Your task to perform on an android device: Show me the best rated vacuum on Walmart. Image 0: 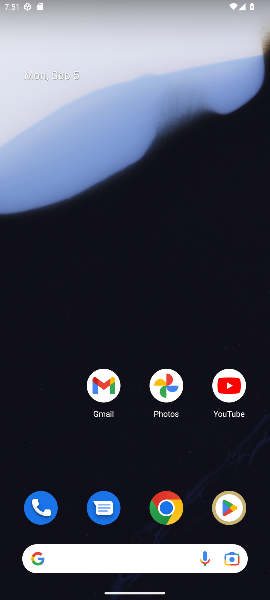
Step 0: click (165, 512)
Your task to perform on an android device: Show me the best rated vacuum on Walmart. Image 1: 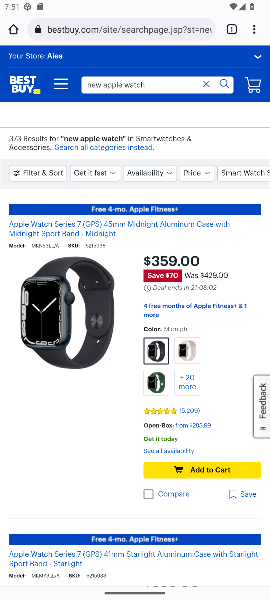
Step 1: click (130, 26)
Your task to perform on an android device: Show me the best rated vacuum on Walmart. Image 2: 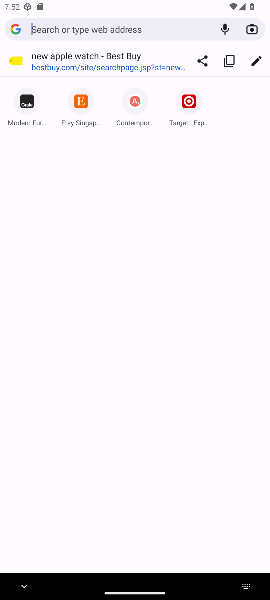
Step 2: type " Walmart."
Your task to perform on an android device: Show me the best rated vacuum on Walmart. Image 3: 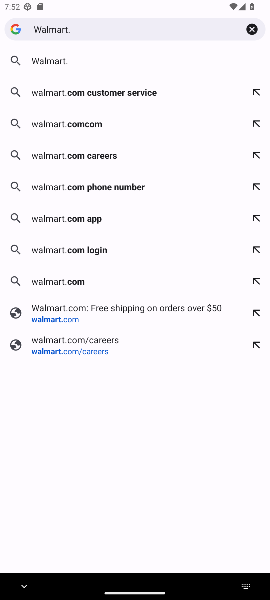
Step 3: click (51, 68)
Your task to perform on an android device: Show me the best rated vacuum on Walmart. Image 4: 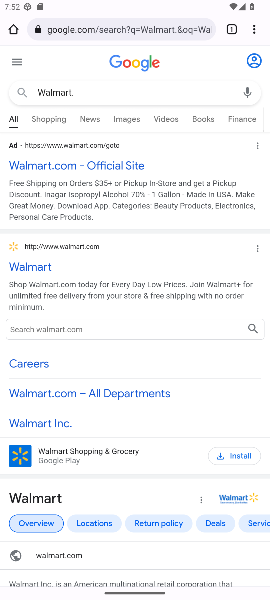
Step 4: click (48, 165)
Your task to perform on an android device: Show me the best rated vacuum on Walmart. Image 5: 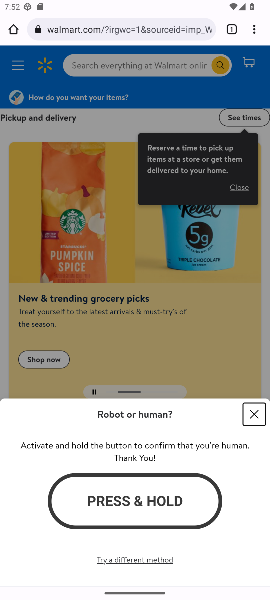
Step 5: click (127, 560)
Your task to perform on an android device: Show me the best rated vacuum on Walmart. Image 6: 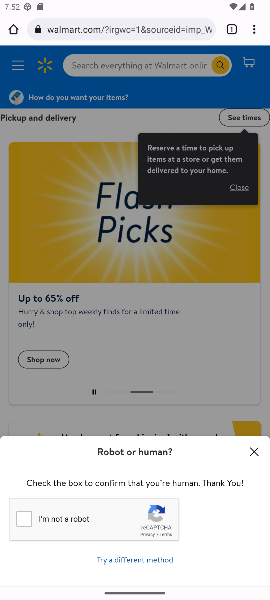
Step 6: click (26, 524)
Your task to perform on an android device: Show me the best rated vacuum on Walmart. Image 7: 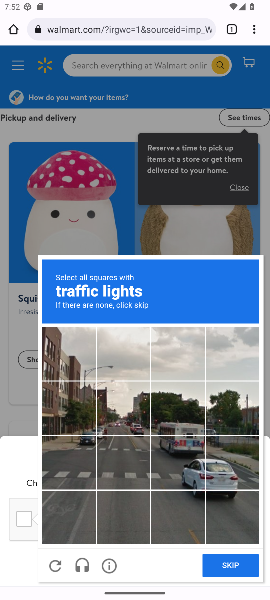
Step 7: click (112, 369)
Your task to perform on an android device: Show me the best rated vacuum on Walmart. Image 8: 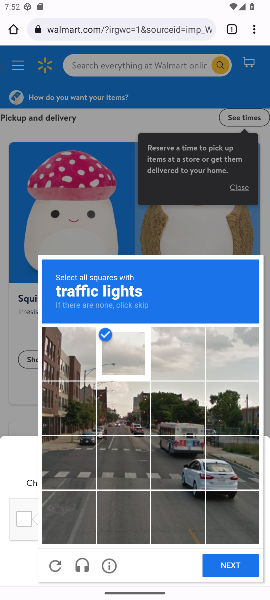
Step 8: click (230, 570)
Your task to perform on an android device: Show me the best rated vacuum on Walmart. Image 9: 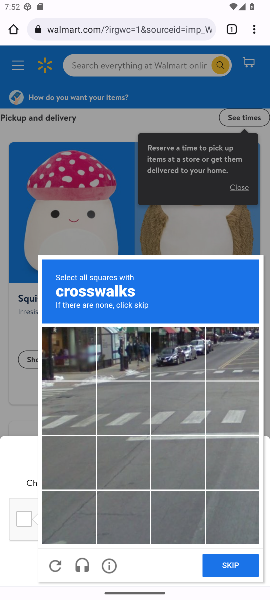
Step 9: click (186, 405)
Your task to perform on an android device: Show me the best rated vacuum on Walmart. Image 10: 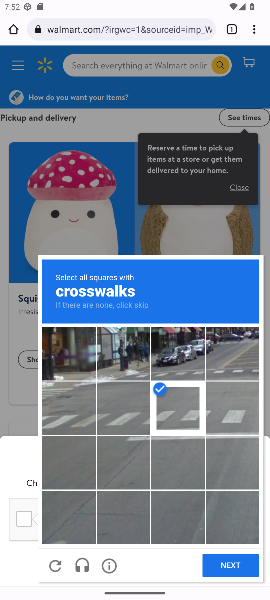
Step 10: click (71, 407)
Your task to perform on an android device: Show me the best rated vacuum on Walmart. Image 11: 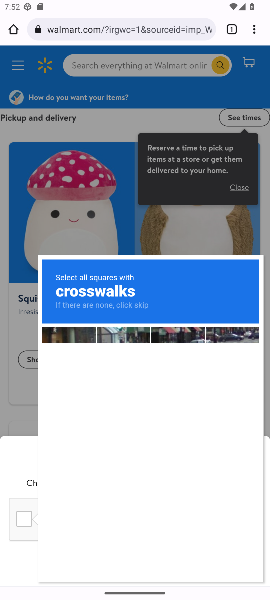
Step 11: click (119, 414)
Your task to perform on an android device: Show me the best rated vacuum on Walmart. Image 12: 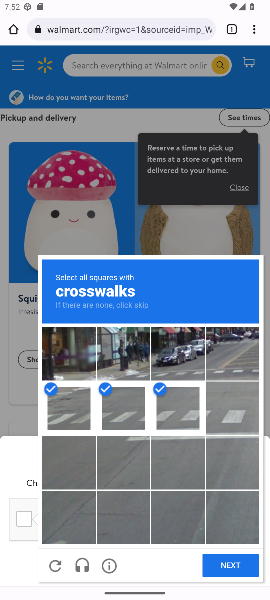
Step 12: click (256, 418)
Your task to perform on an android device: Show me the best rated vacuum on Walmart. Image 13: 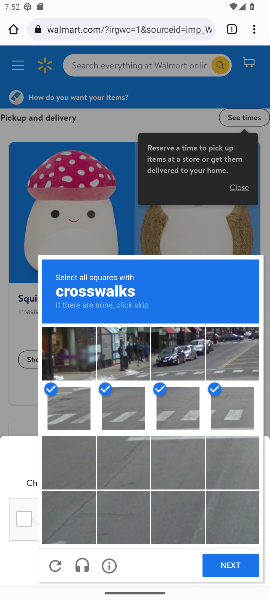
Step 13: click (242, 378)
Your task to perform on an android device: Show me the best rated vacuum on Walmart. Image 14: 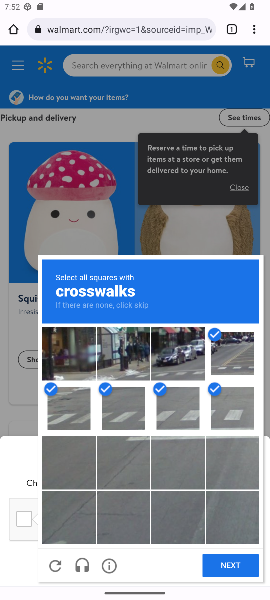
Step 14: click (181, 370)
Your task to perform on an android device: Show me the best rated vacuum on Walmart. Image 15: 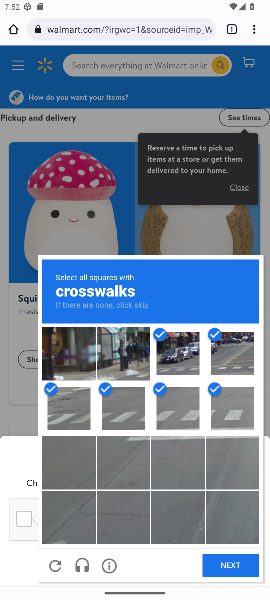
Step 15: click (133, 371)
Your task to perform on an android device: Show me the best rated vacuum on Walmart. Image 16: 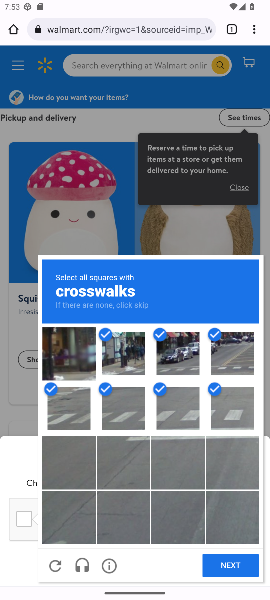
Step 16: click (241, 566)
Your task to perform on an android device: Show me the best rated vacuum on Walmart. Image 17: 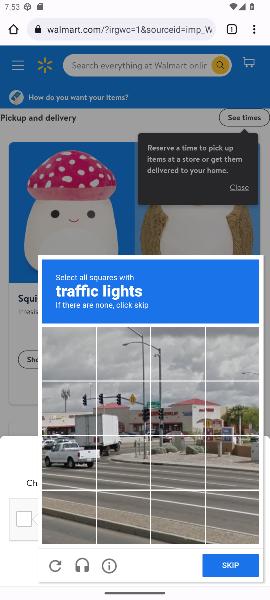
Step 17: click (131, 346)
Your task to perform on an android device: Show me the best rated vacuum on Walmart. Image 18: 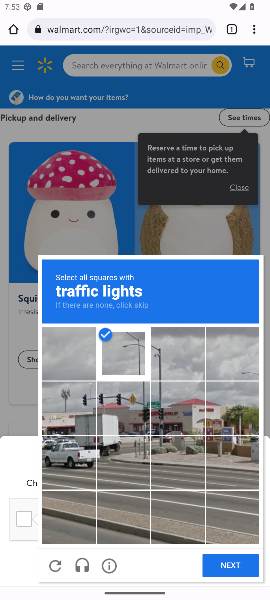
Step 18: click (110, 394)
Your task to perform on an android device: Show me the best rated vacuum on Walmart. Image 19: 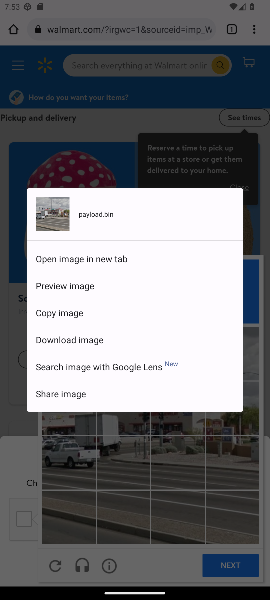
Step 19: click (108, 421)
Your task to perform on an android device: Show me the best rated vacuum on Walmart. Image 20: 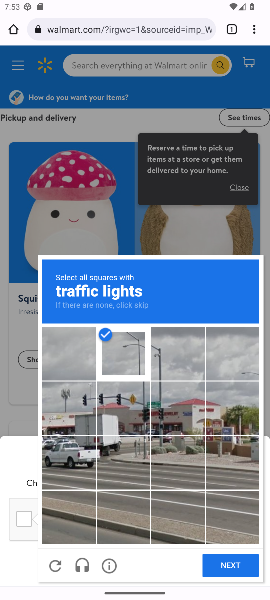
Step 20: click (116, 402)
Your task to perform on an android device: Show me the best rated vacuum on Walmart. Image 21: 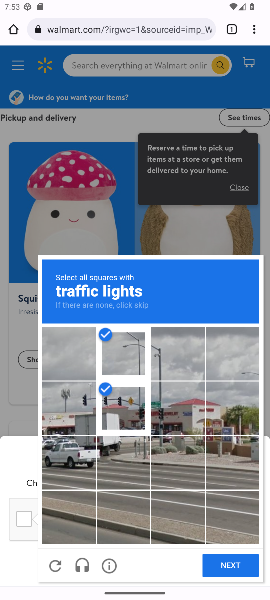
Step 21: click (84, 405)
Your task to perform on an android device: Show me the best rated vacuum on Walmart. Image 22: 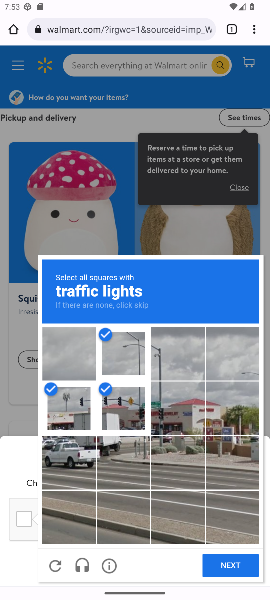
Step 22: click (160, 363)
Your task to perform on an android device: Show me the best rated vacuum on Walmart. Image 23: 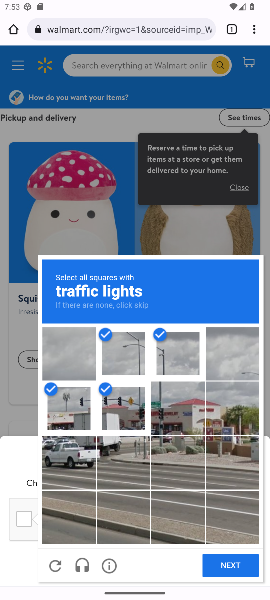
Step 23: click (247, 565)
Your task to perform on an android device: Show me the best rated vacuum on Walmart. Image 24: 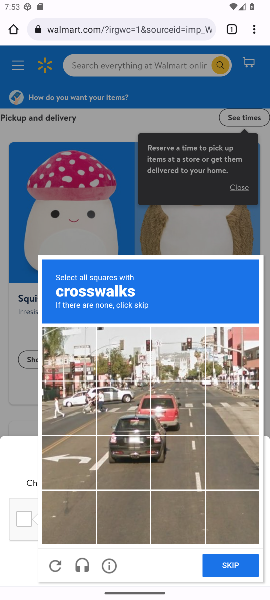
Step 24: click (92, 404)
Your task to perform on an android device: Show me the best rated vacuum on Walmart. Image 25: 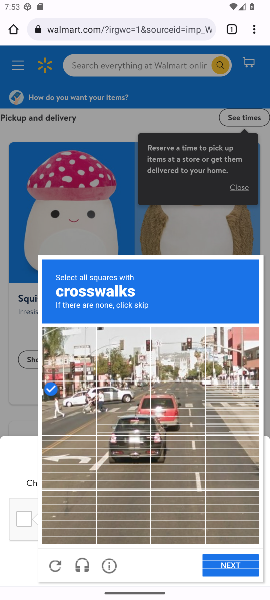
Step 25: click (184, 399)
Your task to perform on an android device: Show me the best rated vacuum on Walmart. Image 26: 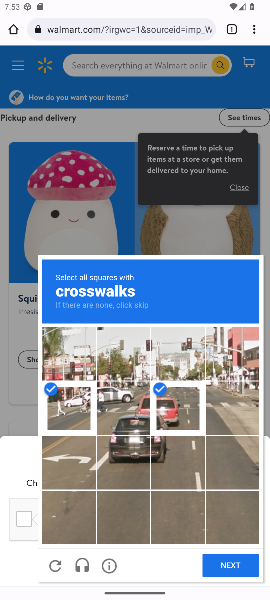
Step 26: click (222, 405)
Your task to perform on an android device: Show me the best rated vacuum on Walmart. Image 27: 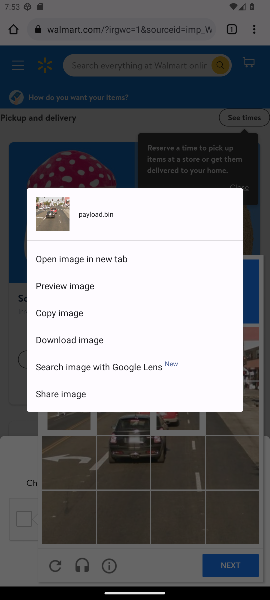
Step 27: click (119, 421)
Your task to perform on an android device: Show me the best rated vacuum on Walmart. Image 28: 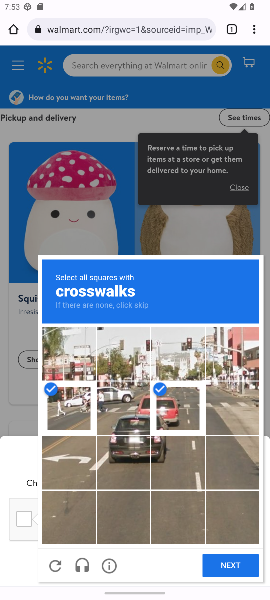
Step 28: click (118, 414)
Your task to perform on an android device: Show me the best rated vacuum on Walmart. Image 29: 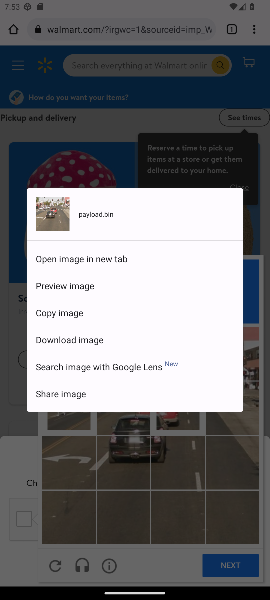
Step 29: click (242, 414)
Your task to perform on an android device: Show me the best rated vacuum on Walmart. Image 30: 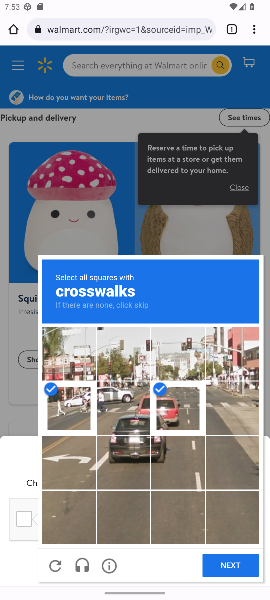
Step 30: click (244, 404)
Your task to perform on an android device: Show me the best rated vacuum on Walmart. Image 31: 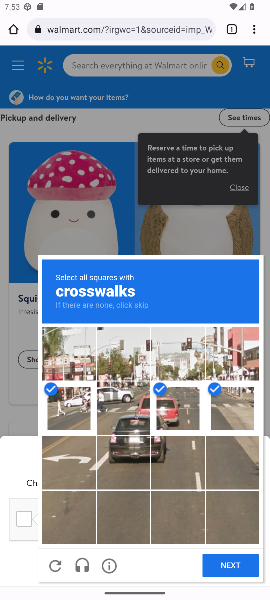
Step 31: click (111, 406)
Your task to perform on an android device: Show me the best rated vacuum on Walmart. Image 32: 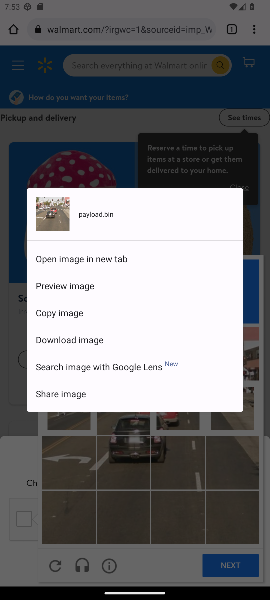
Step 32: click (111, 433)
Your task to perform on an android device: Show me the best rated vacuum on Walmart. Image 33: 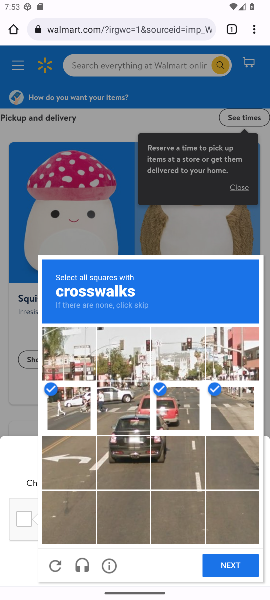
Step 33: click (109, 408)
Your task to perform on an android device: Show me the best rated vacuum on Walmart. Image 34: 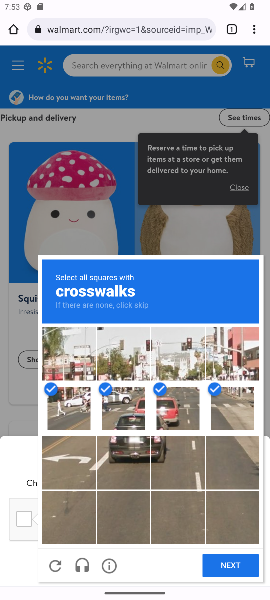
Step 34: click (243, 562)
Your task to perform on an android device: Show me the best rated vacuum on Walmart. Image 35: 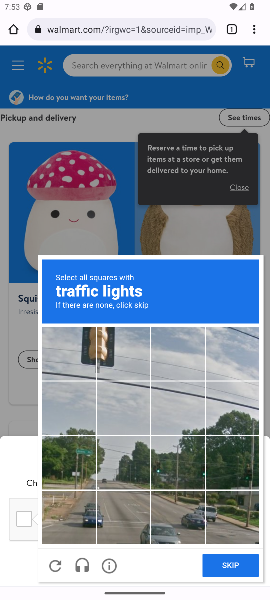
Step 35: click (102, 348)
Your task to perform on an android device: Show me the best rated vacuum on Walmart. Image 36: 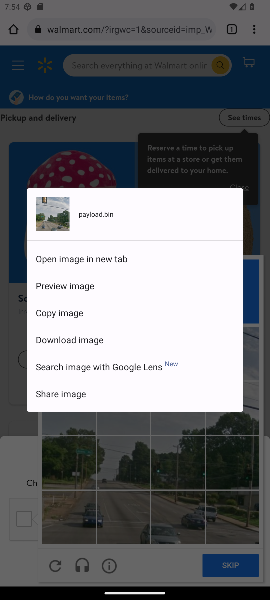
Step 36: click (254, 251)
Your task to perform on an android device: Show me the best rated vacuum on Walmart. Image 37: 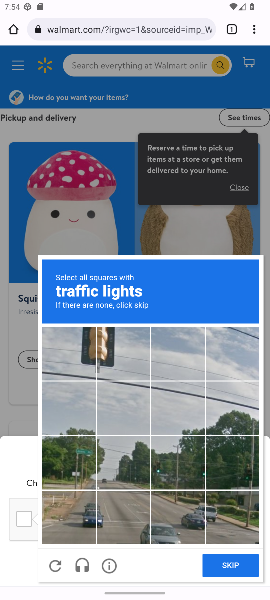
Step 37: click (91, 356)
Your task to perform on an android device: Show me the best rated vacuum on Walmart. Image 38: 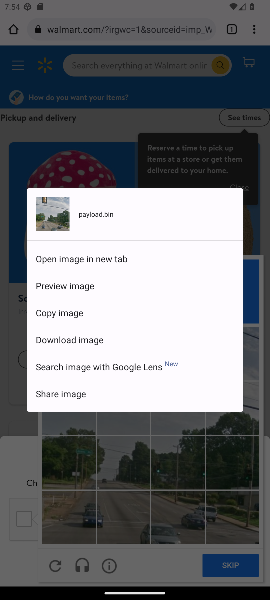
Step 38: click (199, 437)
Your task to perform on an android device: Show me the best rated vacuum on Walmart. Image 39: 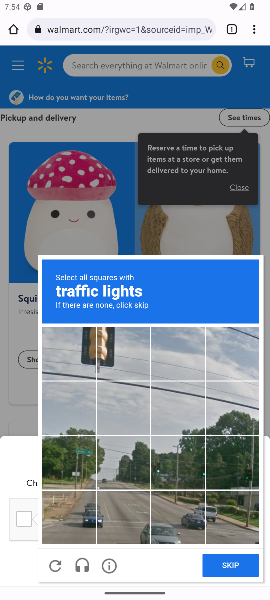
Step 39: click (118, 352)
Your task to perform on an android device: Show me the best rated vacuum on Walmart. Image 40: 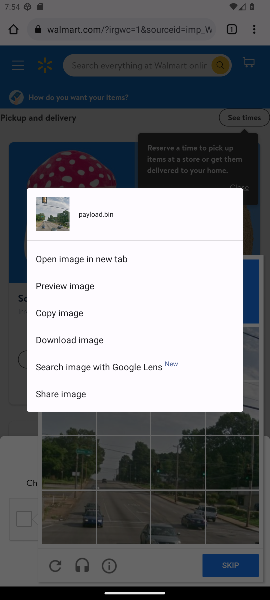
Step 40: click (49, 420)
Your task to perform on an android device: Show me the best rated vacuum on Walmart. Image 41: 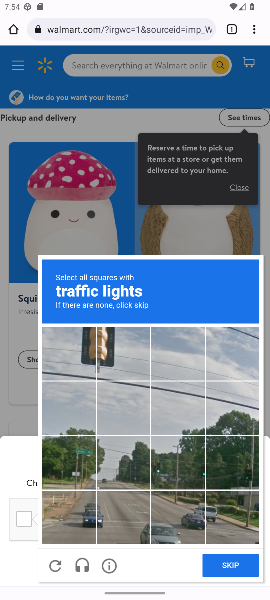
Step 41: click (75, 347)
Your task to perform on an android device: Show me the best rated vacuum on Walmart. Image 42: 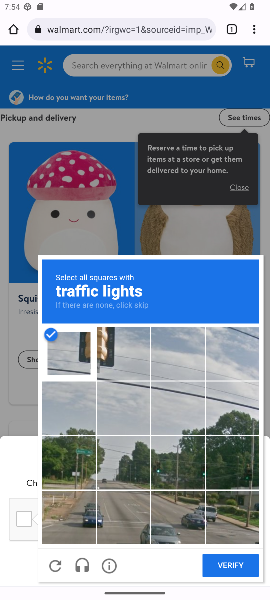
Step 42: click (115, 356)
Your task to perform on an android device: Show me the best rated vacuum on Walmart. Image 43: 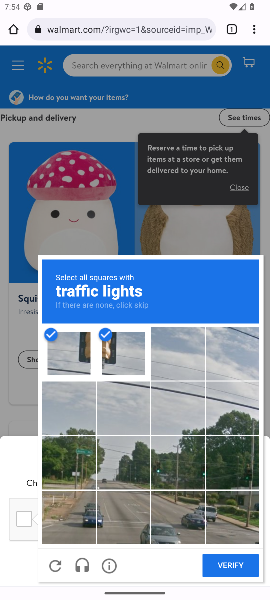
Step 43: click (183, 446)
Your task to perform on an android device: Show me the best rated vacuum on Walmart. Image 44: 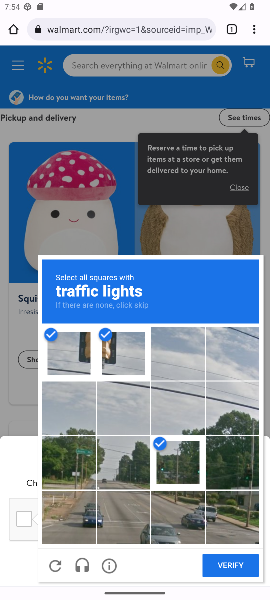
Step 44: click (215, 559)
Your task to perform on an android device: Show me the best rated vacuum on Walmart. Image 45: 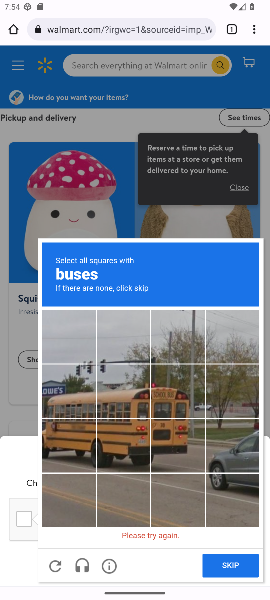
Step 45: click (89, 395)
Your task to perform on an android device: Show me the best rated vacuum on Walmart. Image 46: 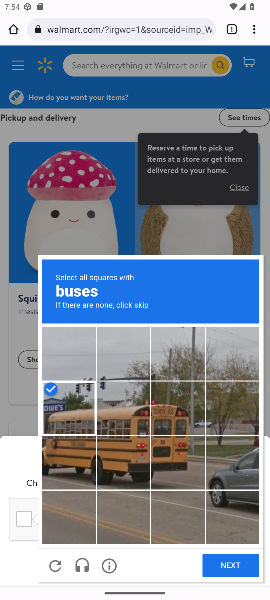
Step 46: drag from (127, 406) to (93, 436)
Your task to perform on an android device: Show me the best rated vacuum on Walmart. Image 47: 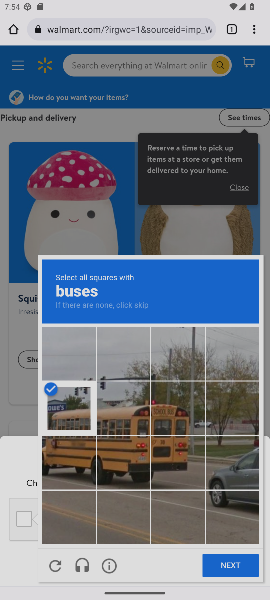
Step 47: click (112, 451)
Your task to perform on an android device: Show me the best rated vacuum on Walmart. Image 48: 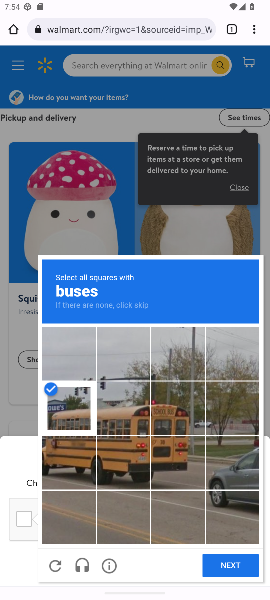
Step 48: drag from (138, 452) to (165, 432)
Your task to perform on an android device: Show me the best rated vacuum on Walmart. Image 49: 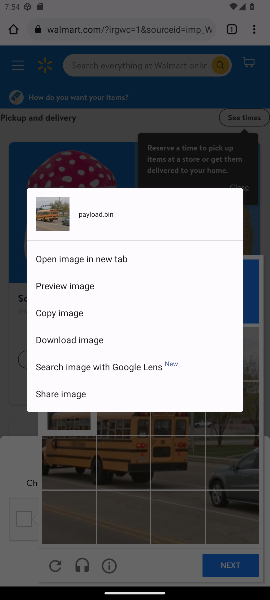
Step 49: click (116, 469)
Your task to perform on an android device: Show me the best rated vacuum on Walmart. Image 50: 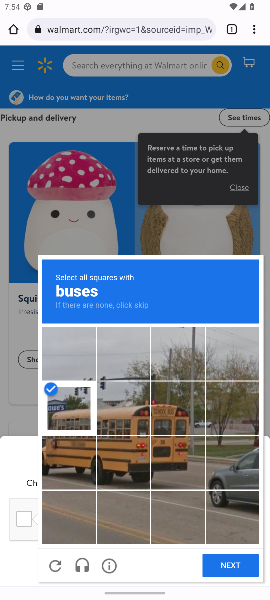
Step 50: click (83, 464)
Your task to perform on an android device: Show me the best rated vacuum on Walmart. Image 51: 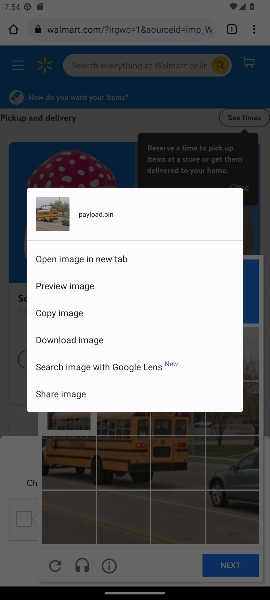
Step 51: click (66, 449)
Your task to perform on an android device: Show me the best rated vacuum on Walmart. Image 52: 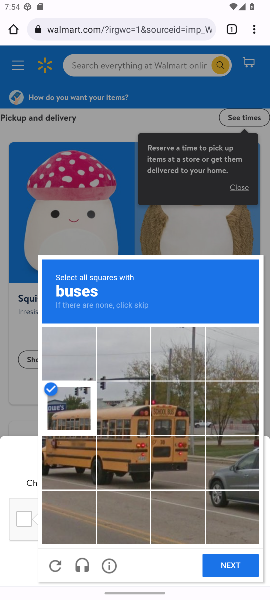
Step 52: click (116, 422)
Your task to perform on an android device: Show me the best rated vacuum on Walmart. Image 53: 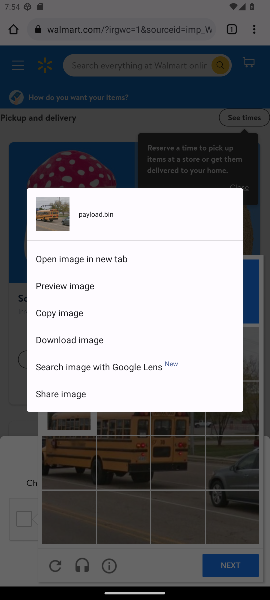
Step 53: click (170, 457)
Your task to perform on an android device: Show me the best rated vacuum on Walmart. Image 54: 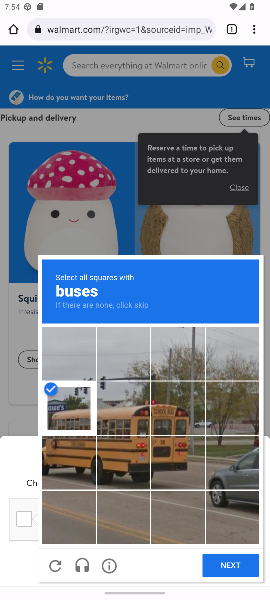
Step 54: click (168, 420)
Your task to perform on an android device: Show me the best rated vacuum on Walmart. Image 55: 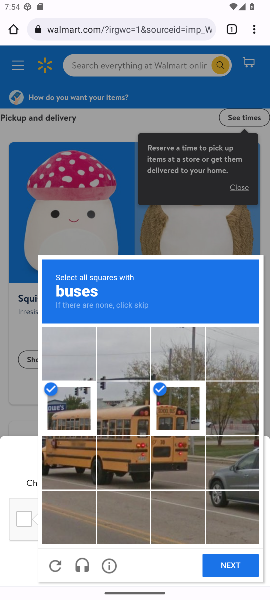
Step 55: click (135, 402)
Your task to perform on an android device: Show me the best rated vacuum on Walmart. Image 56: 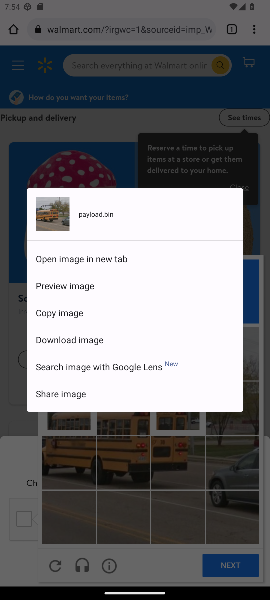
Step 56: click (77, 450)
Your task to perform on an android device: Show me the best rated vacuum on Walmart. Image 57: 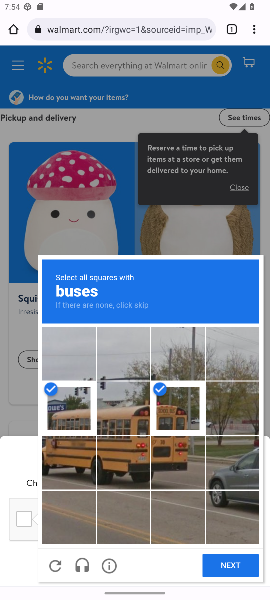
Step 57: click (122, 458)
Your task to perform on an android device: Show me the best rated vacuum on Walmart. Image 58: 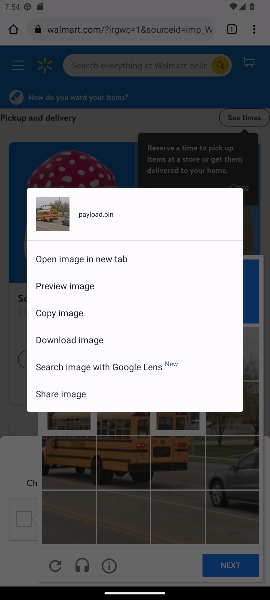
Step 58: click (121, 460)
Your task to perform on an android device: Show me the best rated vacuum on Walmart. Image 59: 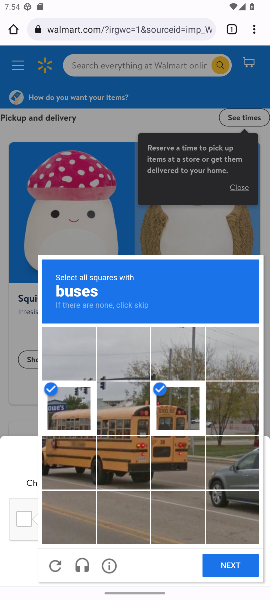
Step 59: click (121, 460)
Your task to perform on an android device: Show me the best rated vacuum on Walmart. Image 60: 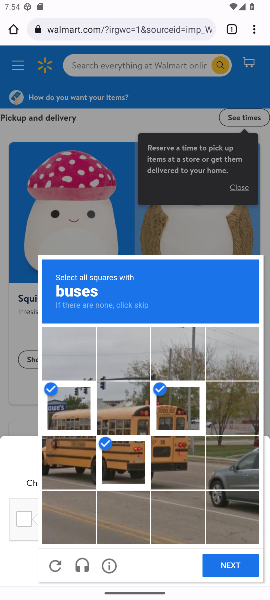
Step 60: click (116, 418)
Your task to perform on an android device: Show me the best rated vacuum on Walmart. Image 61: 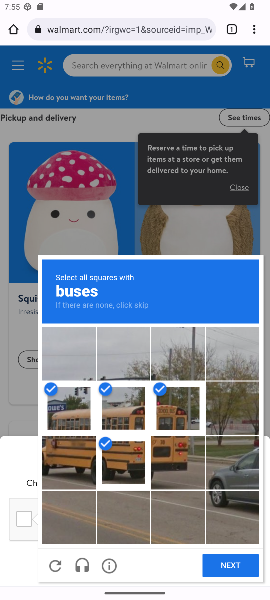
Step 61: click (86, 452)
Your task to perform on an android device: Show me the best rated vacuum on Walmart. Image 62: 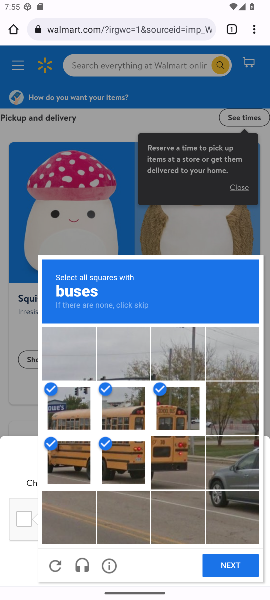
Step 62: click (173, 460)
Your task to perform on an android device: Show me the best rated vacuum on Walmart. Image 63: 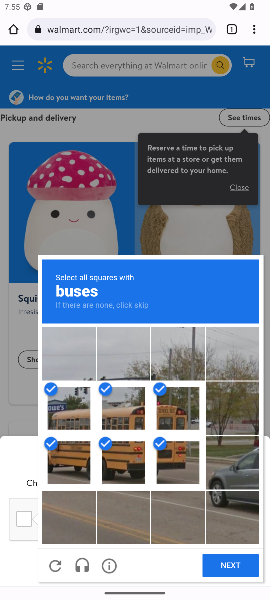
Step 63: click (246, 569)
Your task to perform on an android device: Show me the best rated vacuum on Walmart. Image 64: 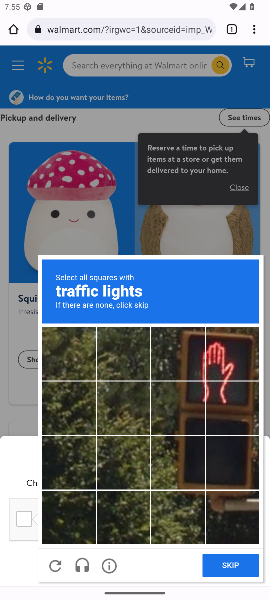
Step 64: task complete